Your task to perform on an android device: change the clock display to digital Image 0: 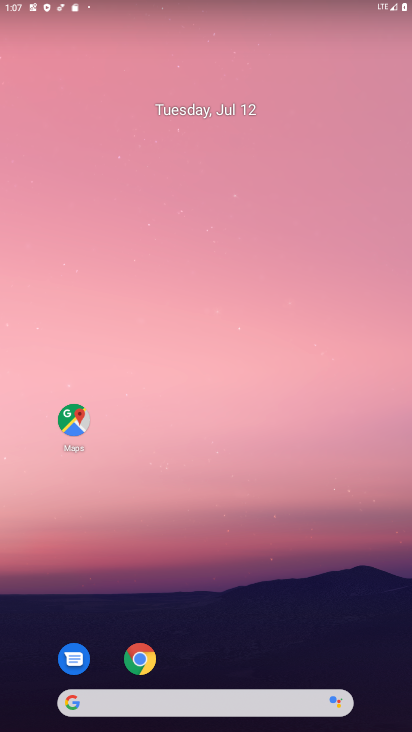
Step 0: drag from (226, 731) to (231, 129)
Your task to perform on an android device: change the clock display to digital Image 1: 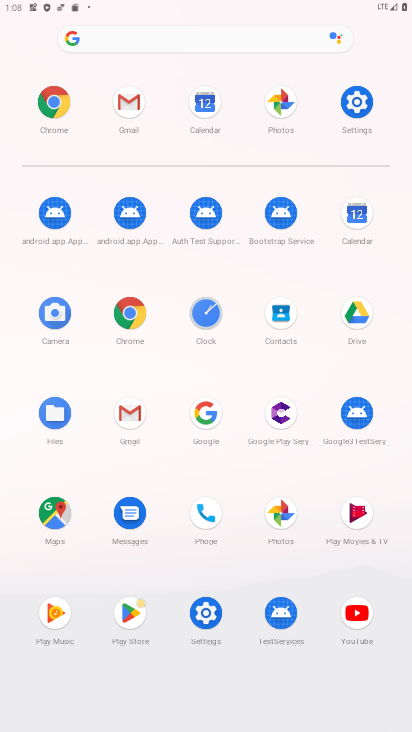
Step 1: click (202, 320)
Your task to perform on an android device: change the clock display to digital Image 2: 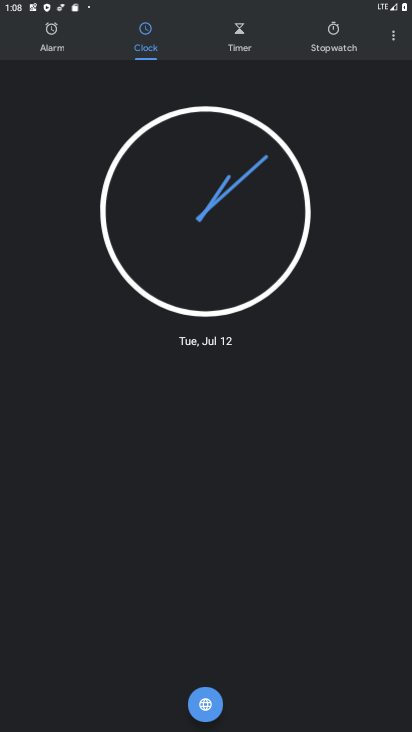
Step 2: click (391, 39)
Your task to perform on an android device: change the clock display to digital Image 3: 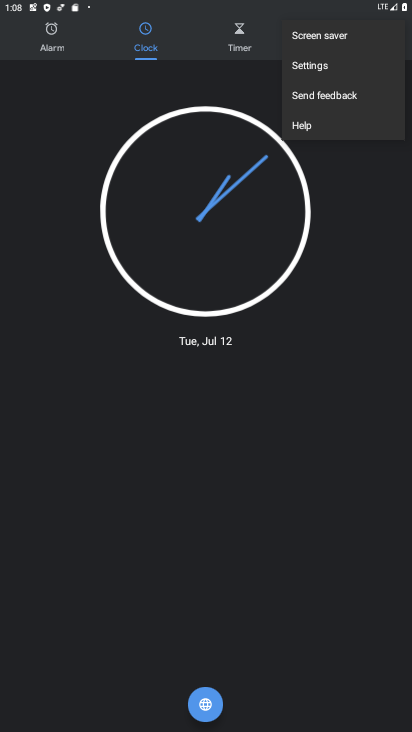
Step 3: click (312, 63)
Your task to perform on an android device: change the clock display to digital Image 4: 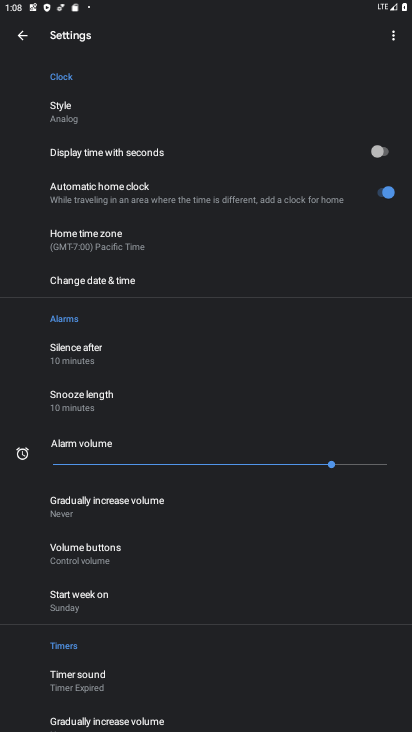
Step 4: click (66, 113)
Your task to perform on an android device: change the clock display to digital Image 5: 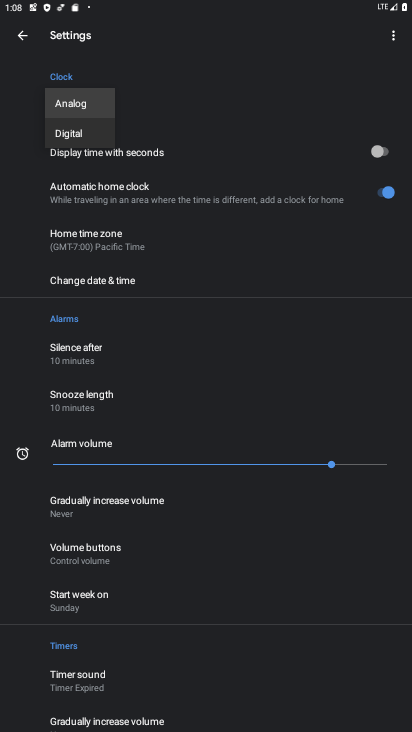
Step 5: click (65, 132)
Your task to perform on an android device: change the clock display to digital Image 6: 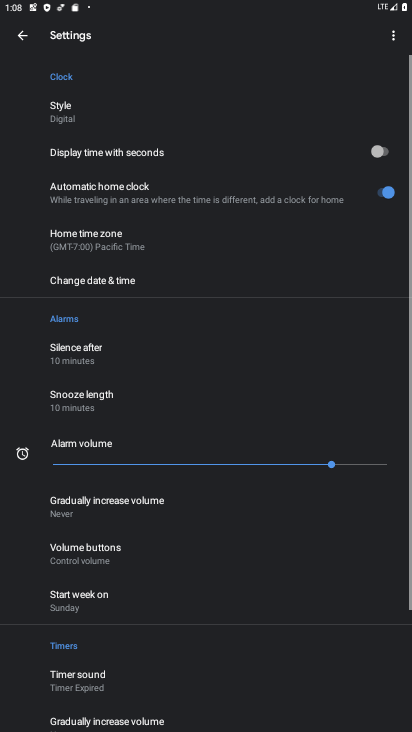
Step 6: task complete